Your task to perform on an android device: see tabs open on other devices in the chrome app Image 0: 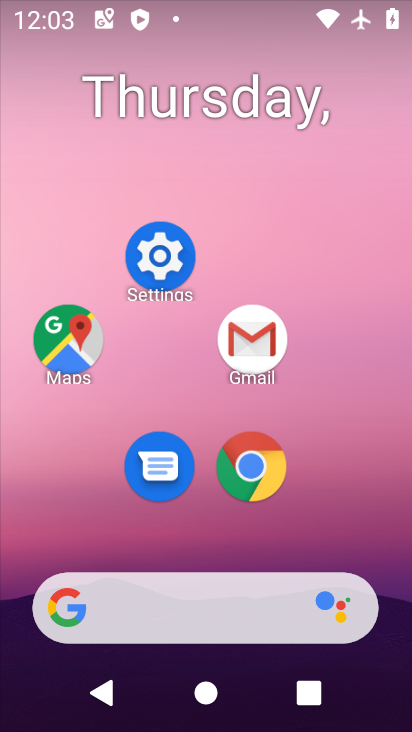
Step 0: click (248, 438)
Your task to perform on an android device: see tabs open on other devices in the chrome app Image 1: 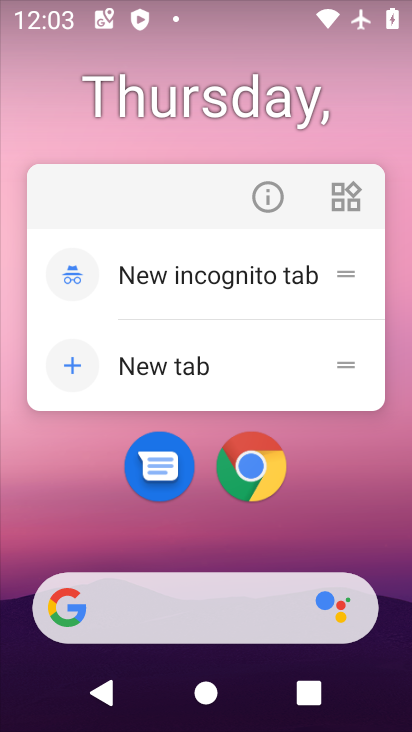
Step 1: click (264, 191)
Your task to perform on an android device: see tabs open on other devices in the chrome app Image 2: 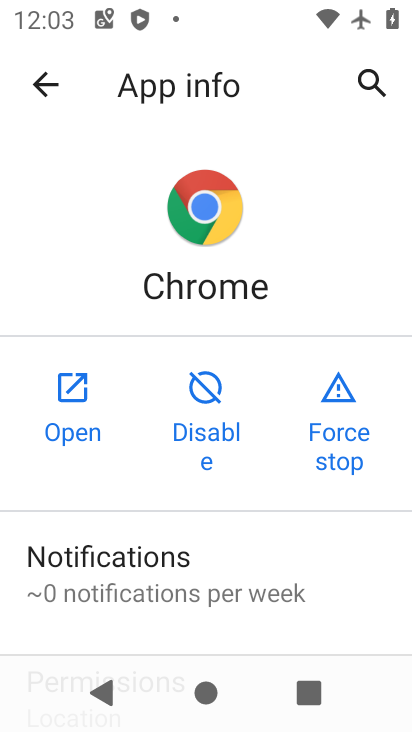
Step 2: click (66, 404)
Your task to perform on an android device: see tabs open on other devices in the chrome app Image 3: 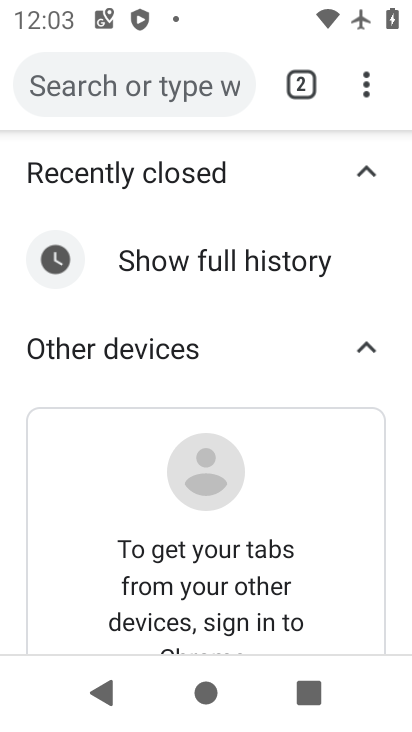
Step 3: drag from (359, 77) to (185, 392)
Your task to perform on an android device: see tabs open on other devices in the chrome app Image 4: 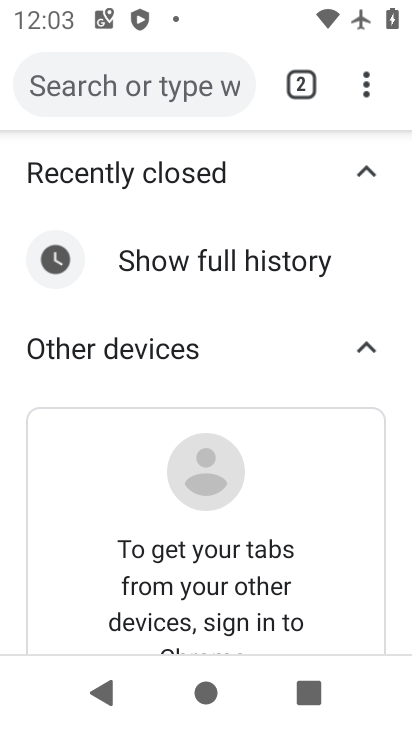
Step 4: drag from (237, 552) to (281, 298)
Your task to perform on an android device: see tabs open on other devices in the chrome app Image 5: 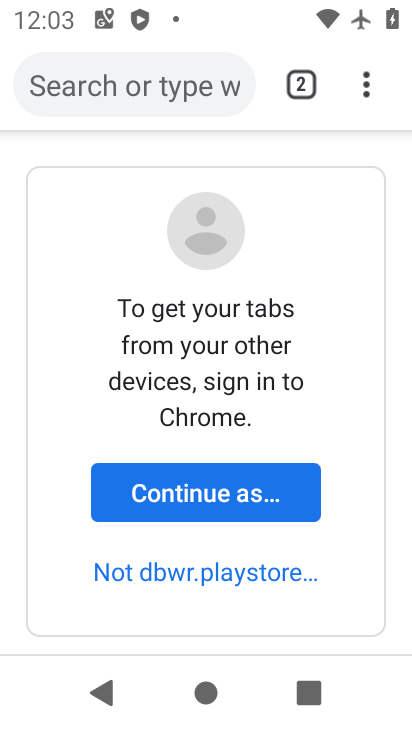
Step 5: drag from (327, 152) to (345, 616)
Your task to perform on an android device: see tabs open on other devices in the chrome app Image 6: 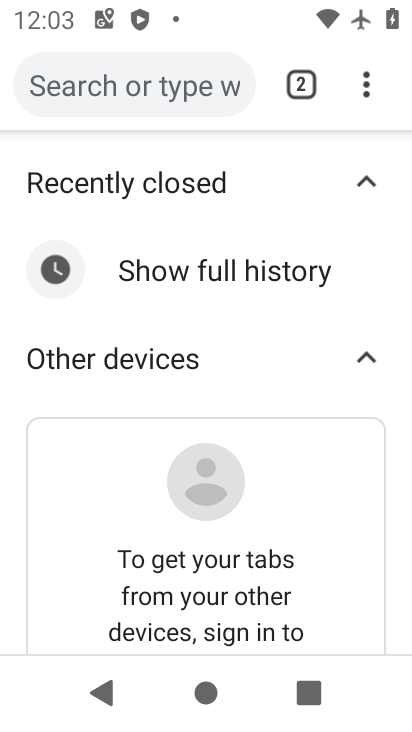
Step 6: click (374, 349)
Your task to perform on an android device: see tabs open on other devices in the chrome app Image 7: 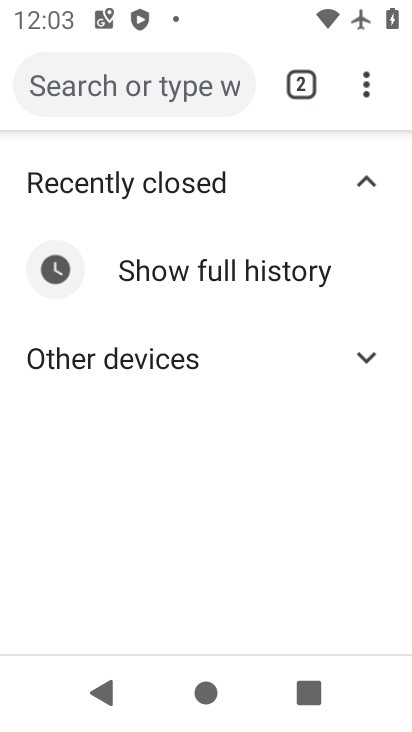
Step 7: task complete